Your task to perform on an android device: Open network settings Image 0: 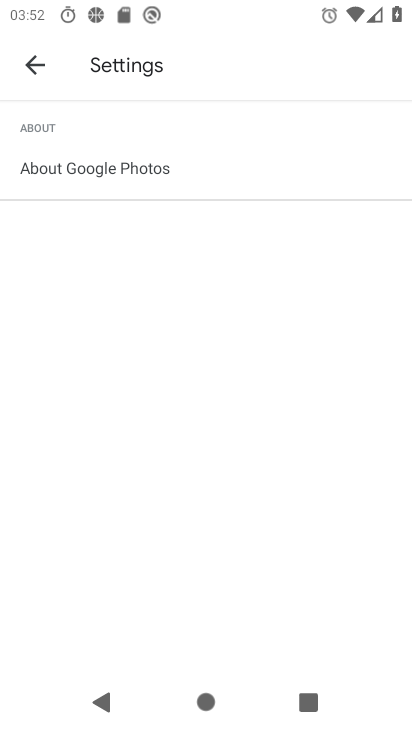
Step 0: press back button
Your task to perform on an android device: Open network settings Image 1: 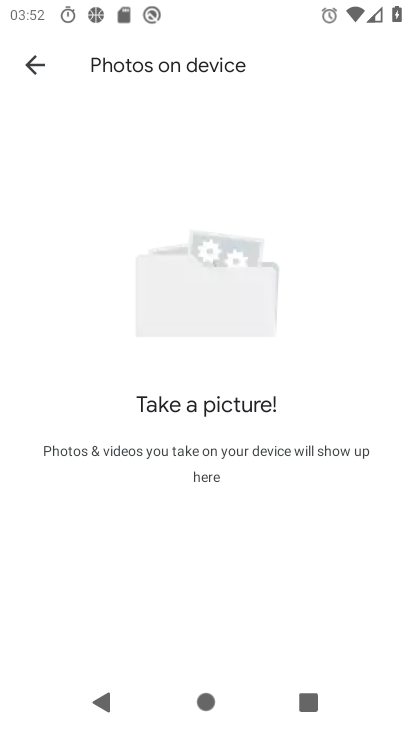
Step 1: press back button
Your task to perform on an android device: Open network settings Image 2: 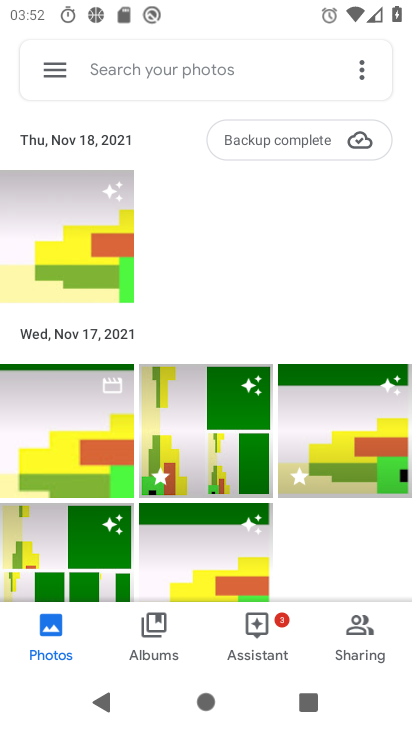
Step 2: press back button
Your task to perform on an android device: Open network settings Image 3: 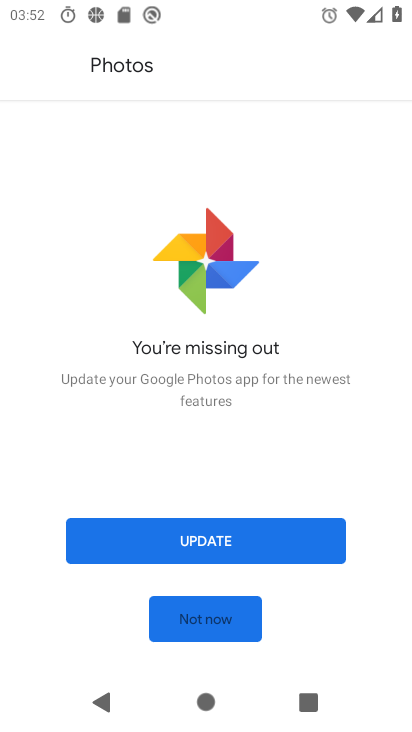
Step 3: press home button
Your task to perform on an android device: Open network settings Image 4: 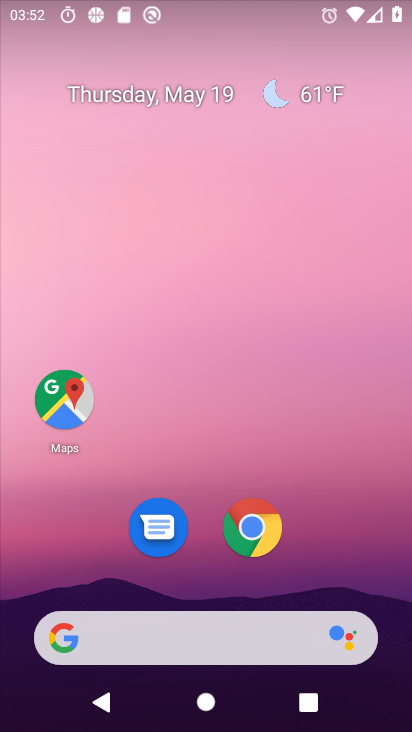
Step 4: drag from (205, 585) to (334, 112)
Your task to perform on an android device: Open network settings Image 5: 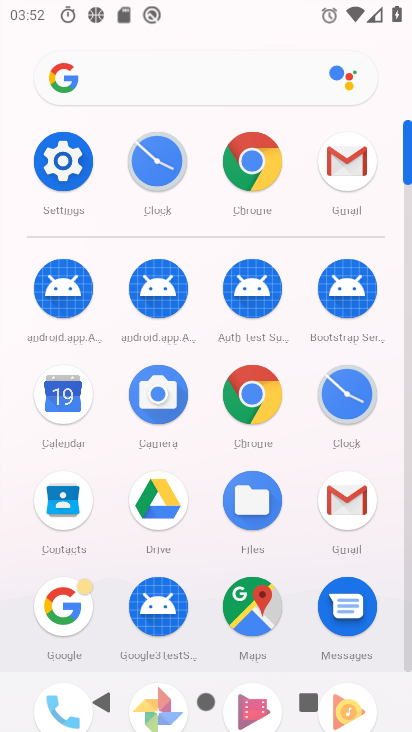
Step 5: click (60, 170)
Your task to perform on an android device: Open network settings Image 6: 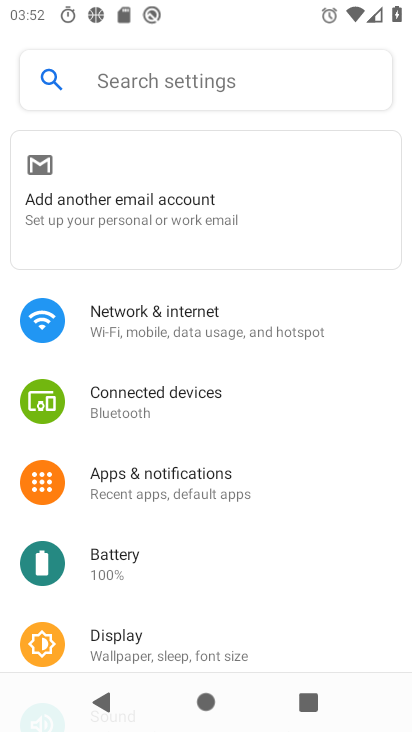
Step 6: click (131, 321)
Your task to perform on an android device: Open network settings Image 7: 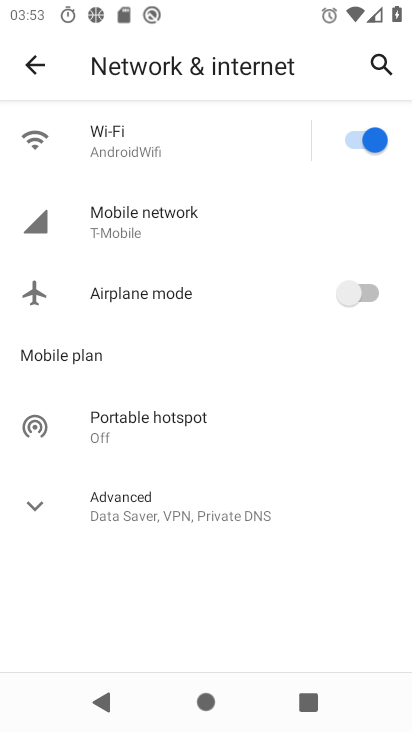
Step 7: task complete